Your task to perform on an android device: Search for logitech g910 on costco, select the first entry, add it to the cart, then select checkout. Image 0: 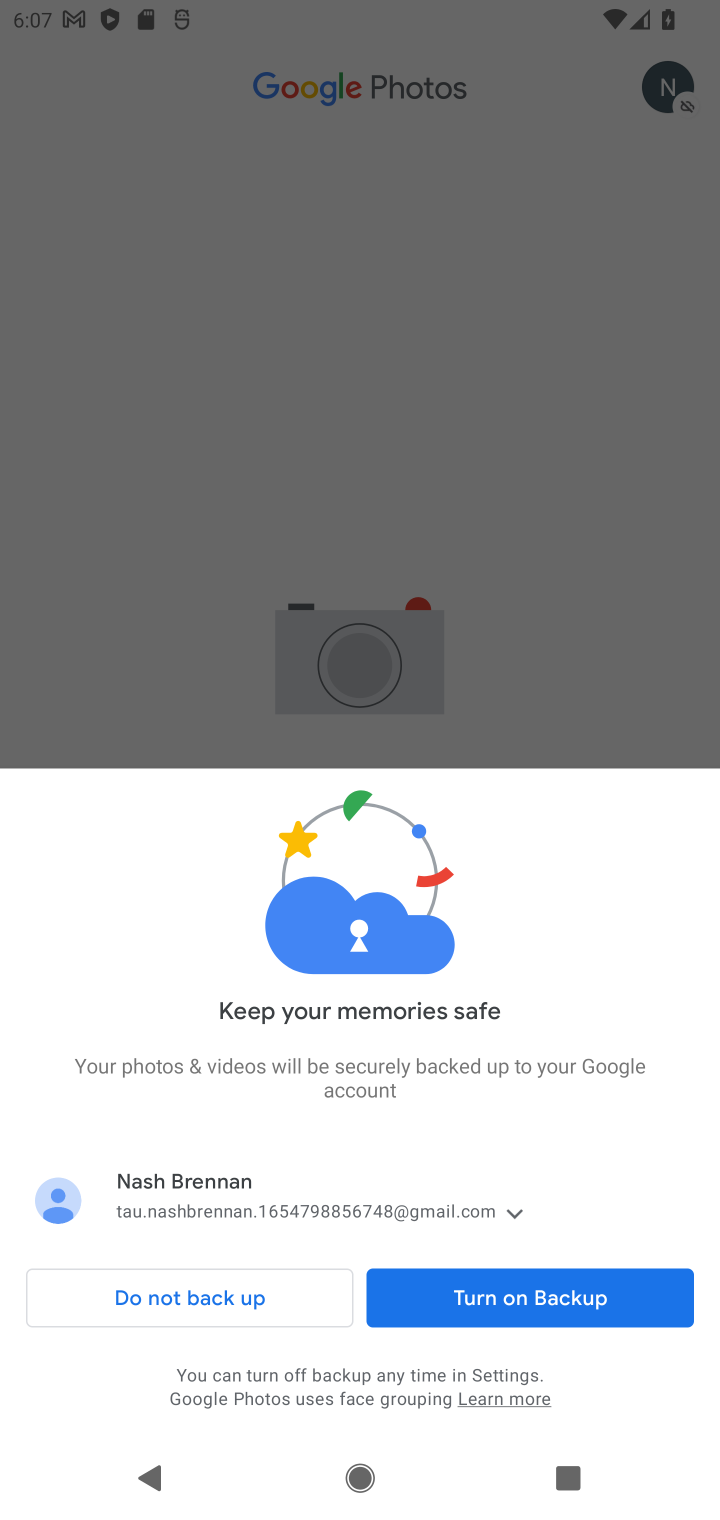
Step 0: press home button
Your task to perform on an android device: Search for logitech g910 on costco, select the first entry, add it to the cart, then select checkout. Image 1: 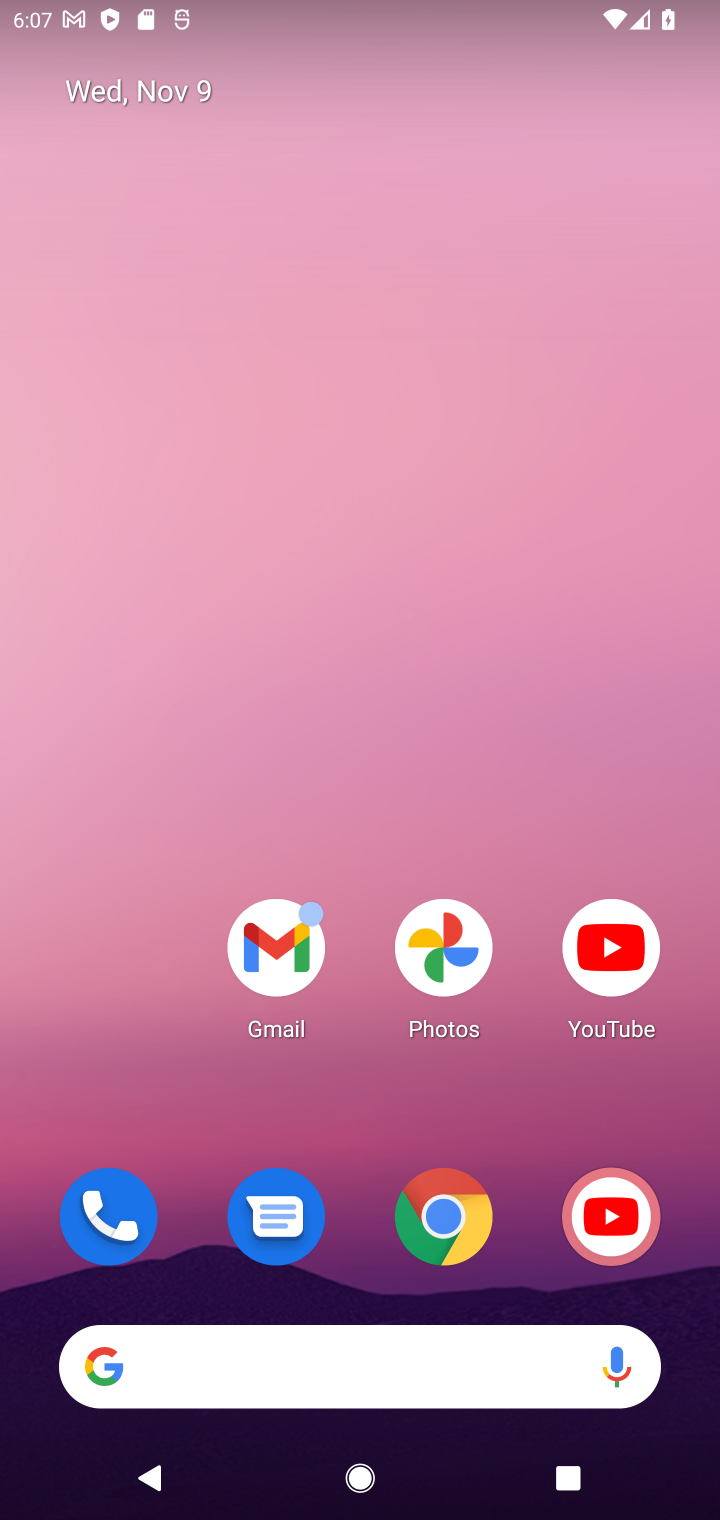
Step 1: drag from (364, 1111) to (460, 63)
Your task to perform on an android device: Search for logitech g910 on costco, select the first entry, add it to the cart, then select checkout. Image 2: 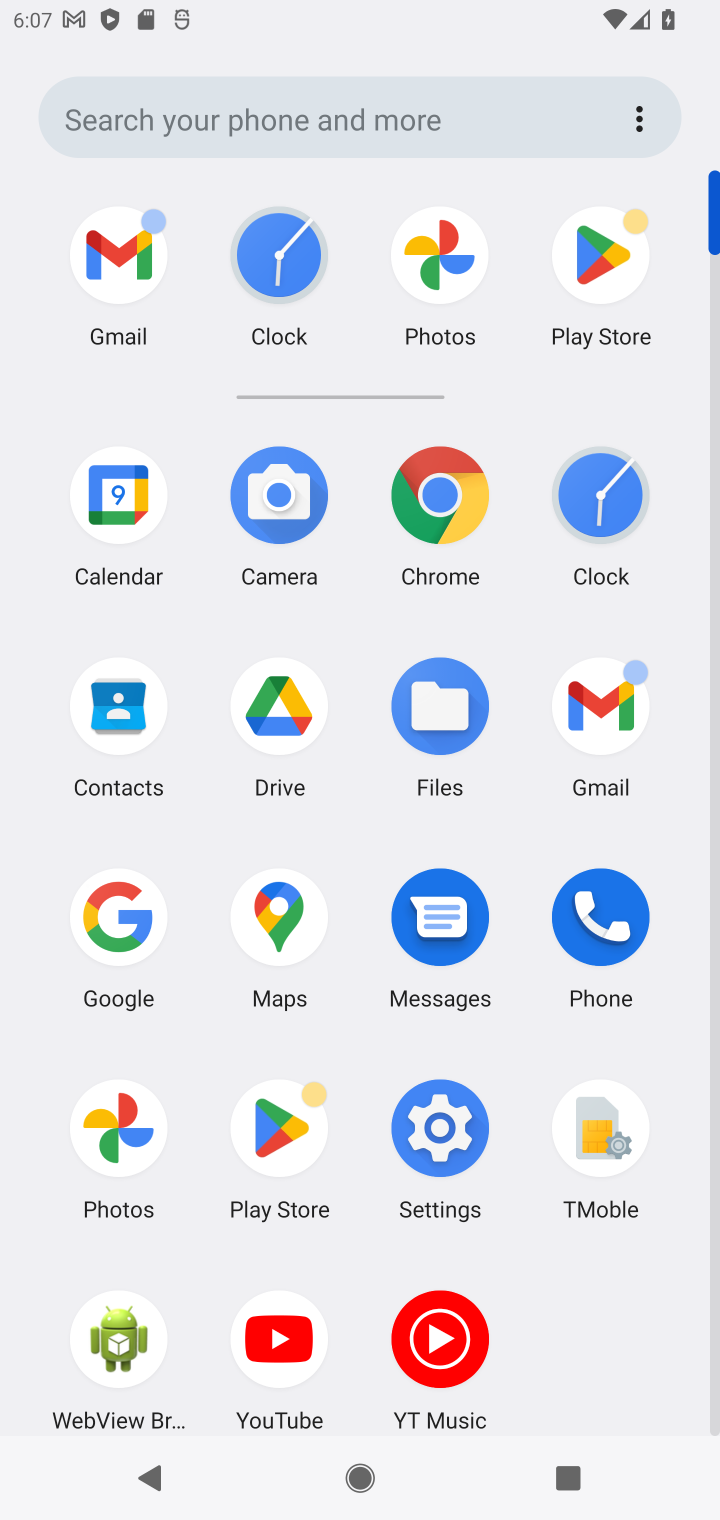
Step 2: click (442, 500)
Your task to perform on an android device: Search for logitech g910 on costco, select the first entry, add it to the cart, then select checkout. Image 3: 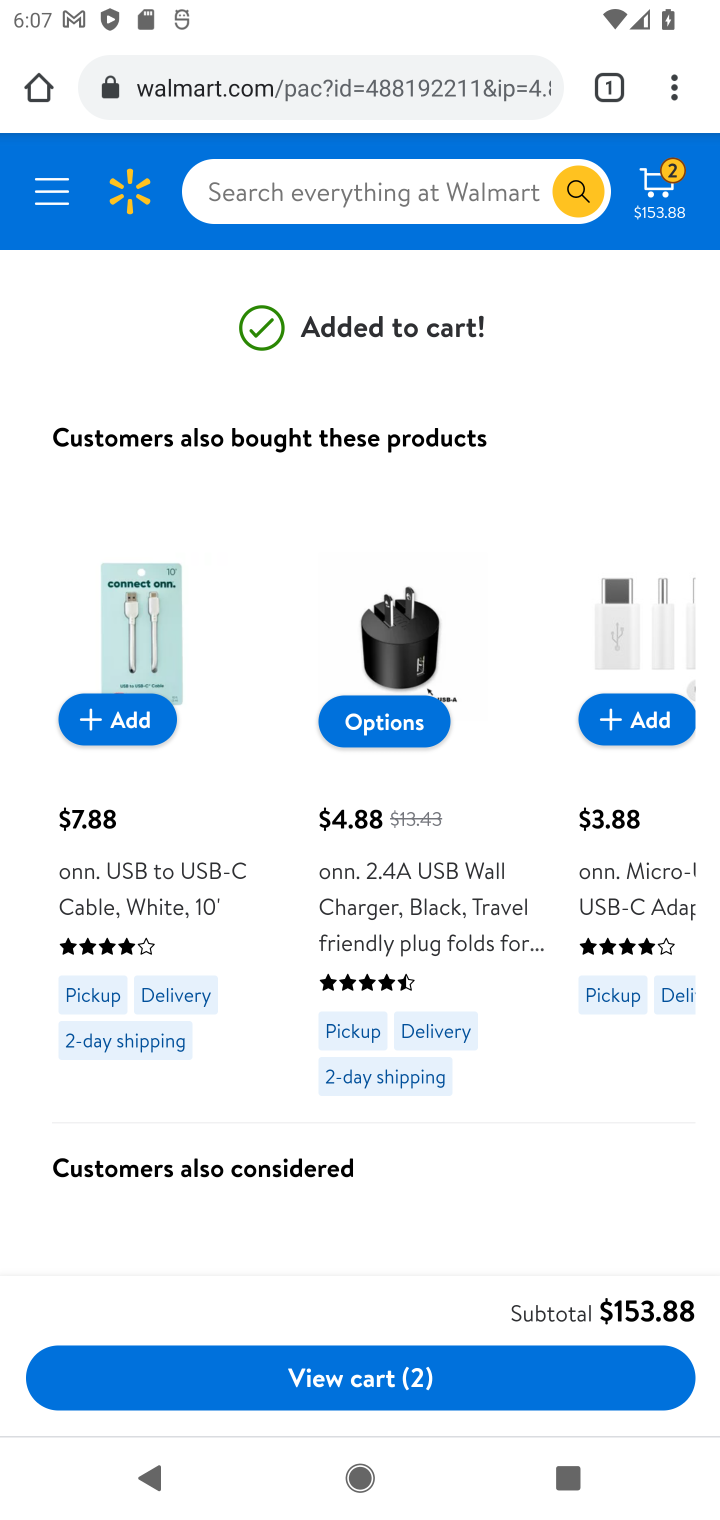
Step 3: click (353, 91)
Your task to perform on an android device: Search for logitech g910 on costco, select the first entry, add it to the cart, then select checkout. Image 4: 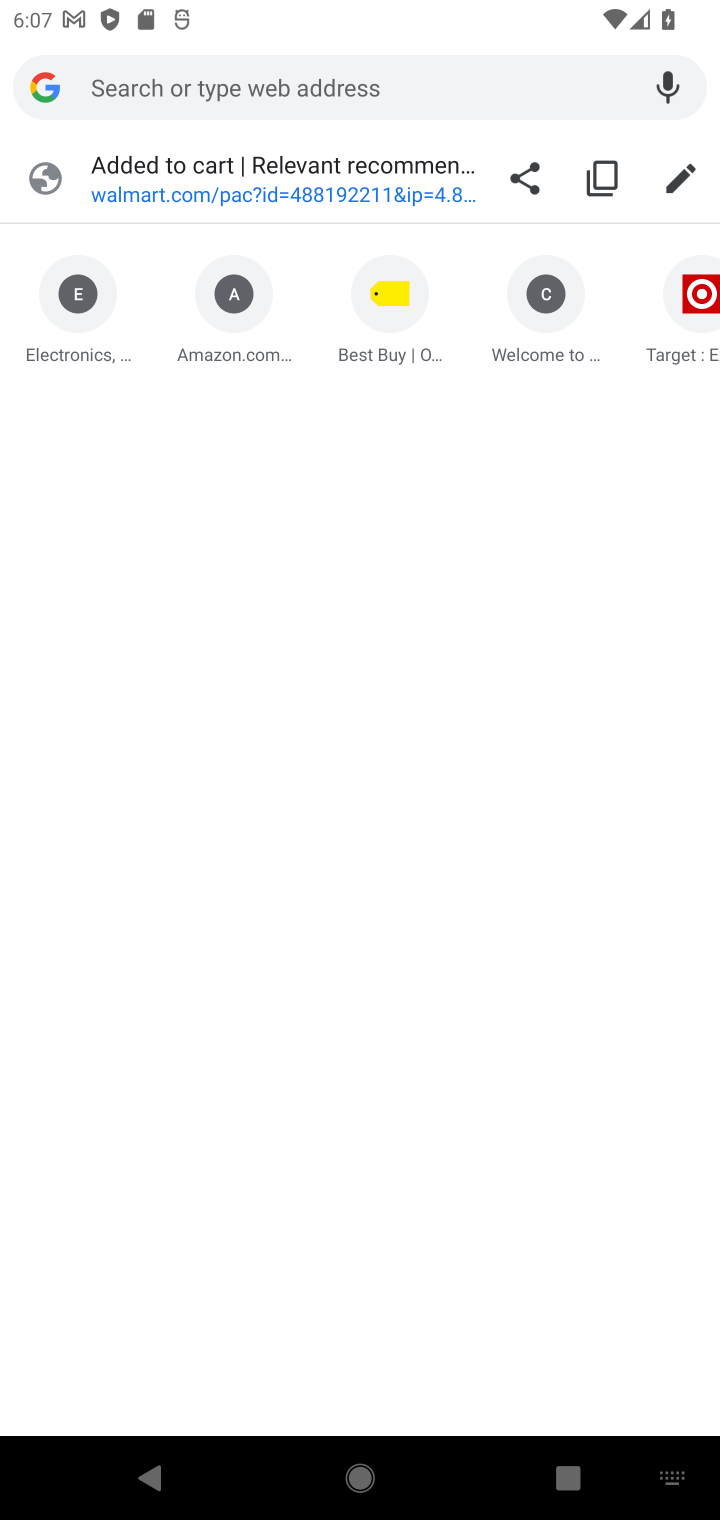
Step 4: type "costco.com"
Your task to perform on an android device: Search for logitech g910 on costco, select the first entry, add it to the cart, then select checkout. Image 5: 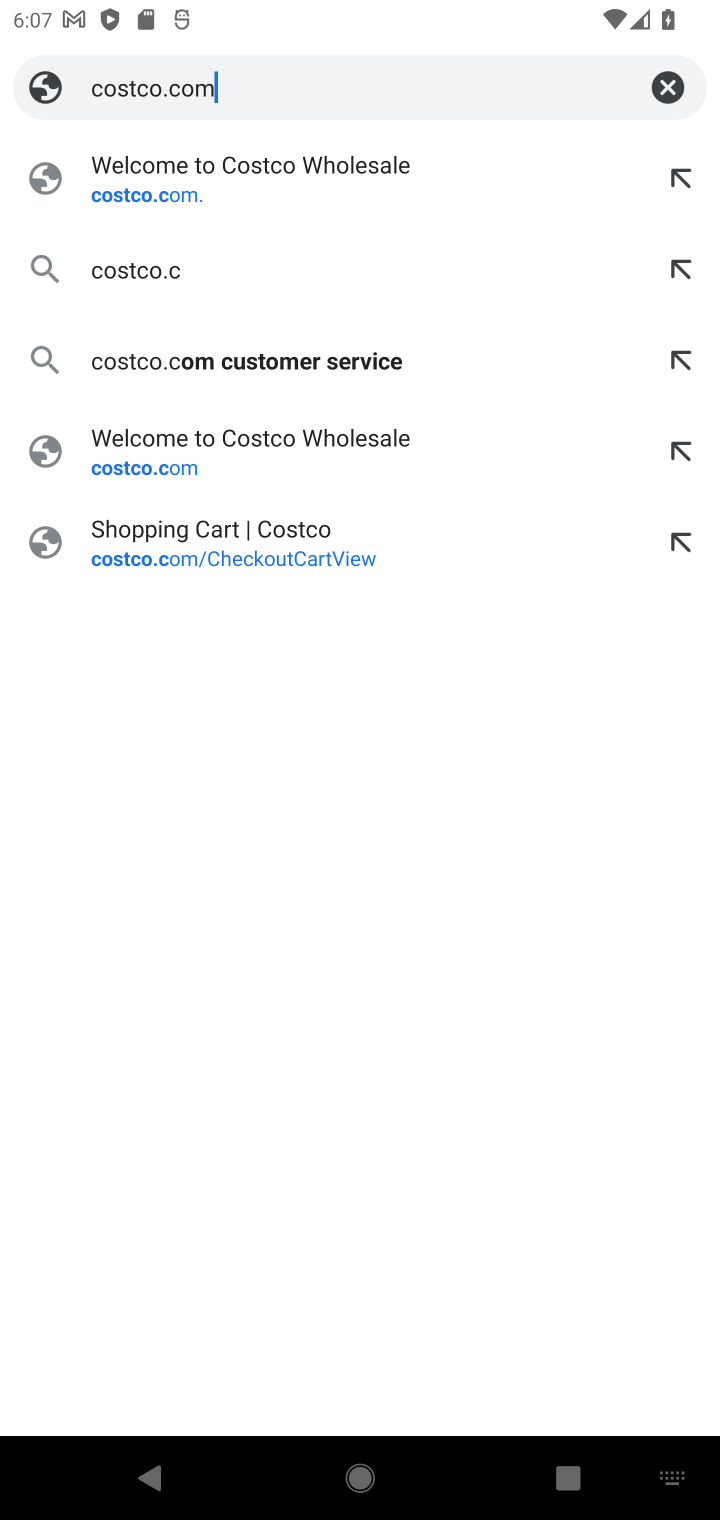
Step 5: press enter
Your task to perform on an android device: Search for logitech g910 on costco, select the first entry, add it to the cart, then select checkout. Image 6: 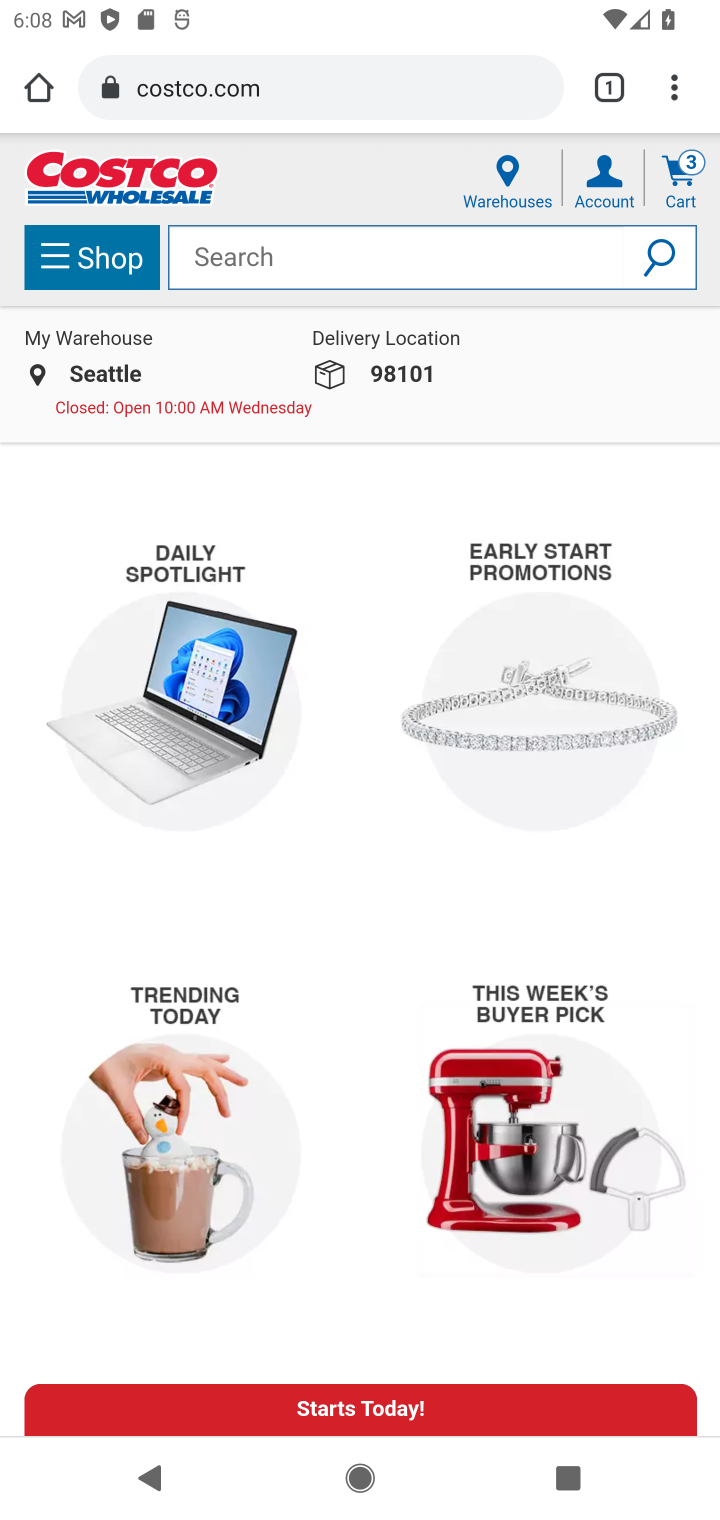
Step 6: click (259, 257)
Your task to perform on an android device: Search for logitech g910 on costco, select the first entry, add it to the cart, then select checkout. Image 7: 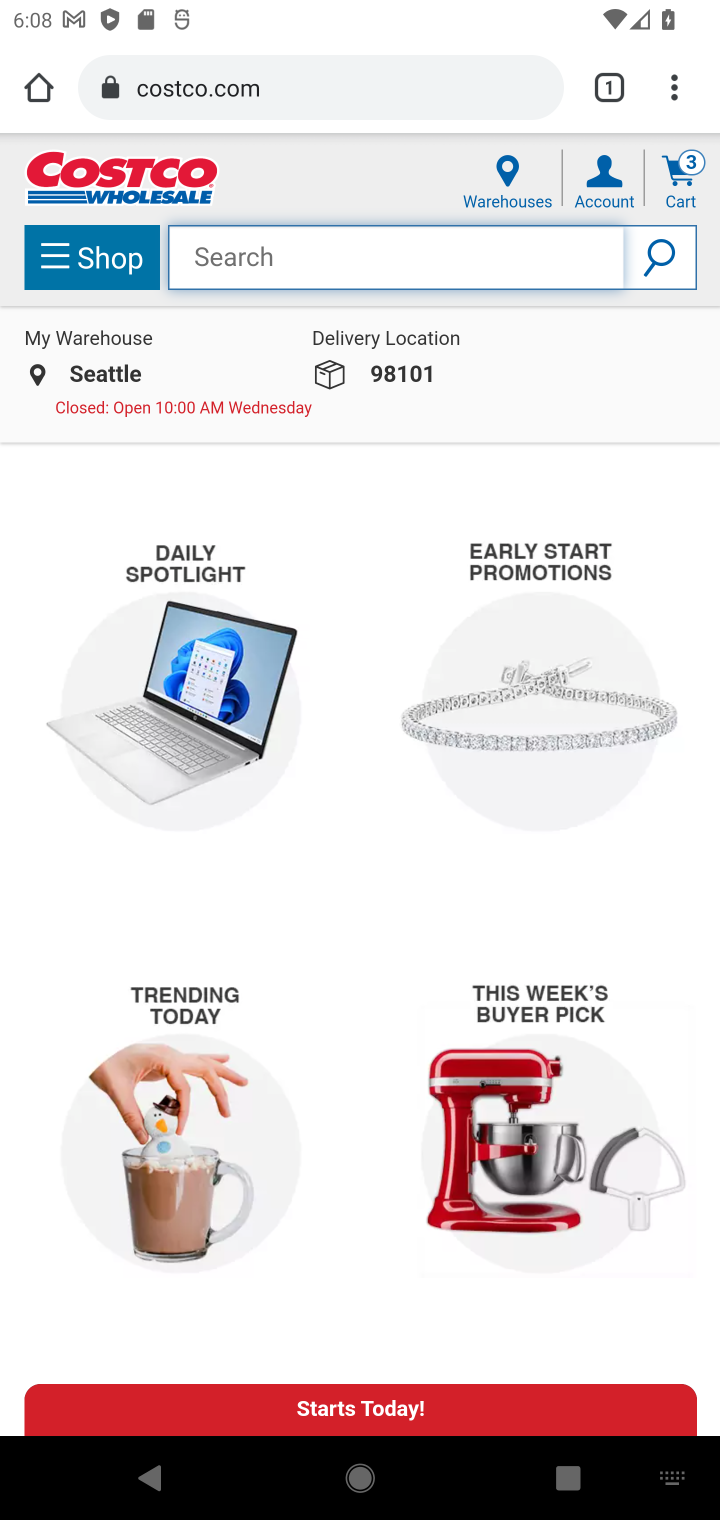
Step 7: type "logitech g910"
Your task to perform on an android device: Search for logitech g910 on costco, select the first entry, add it to the cart, then select checkout. Image 8: 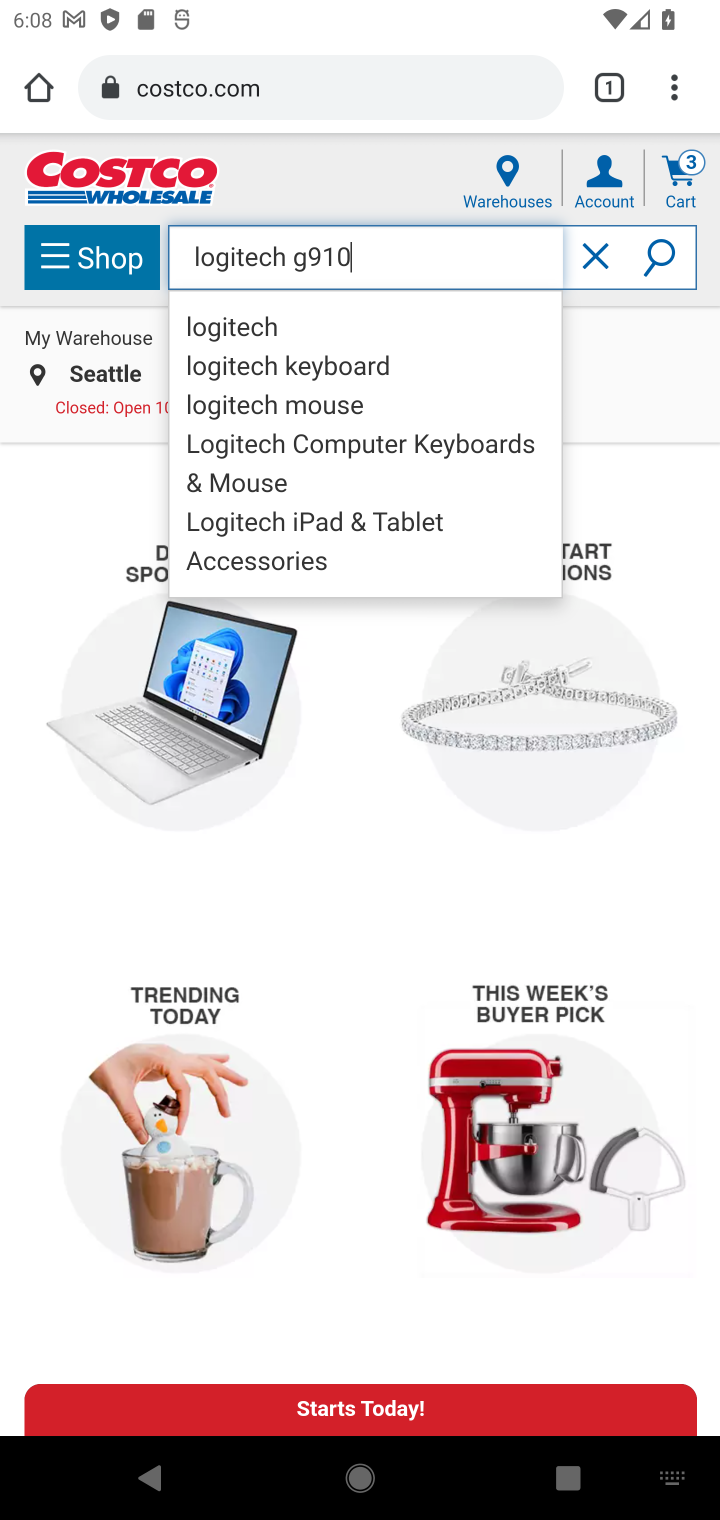
Step 8: press enter
Your task to perform on an android device: Search for logitech g910 on costco, select the first entry, add it to the cart, then select checkout. Image 9: 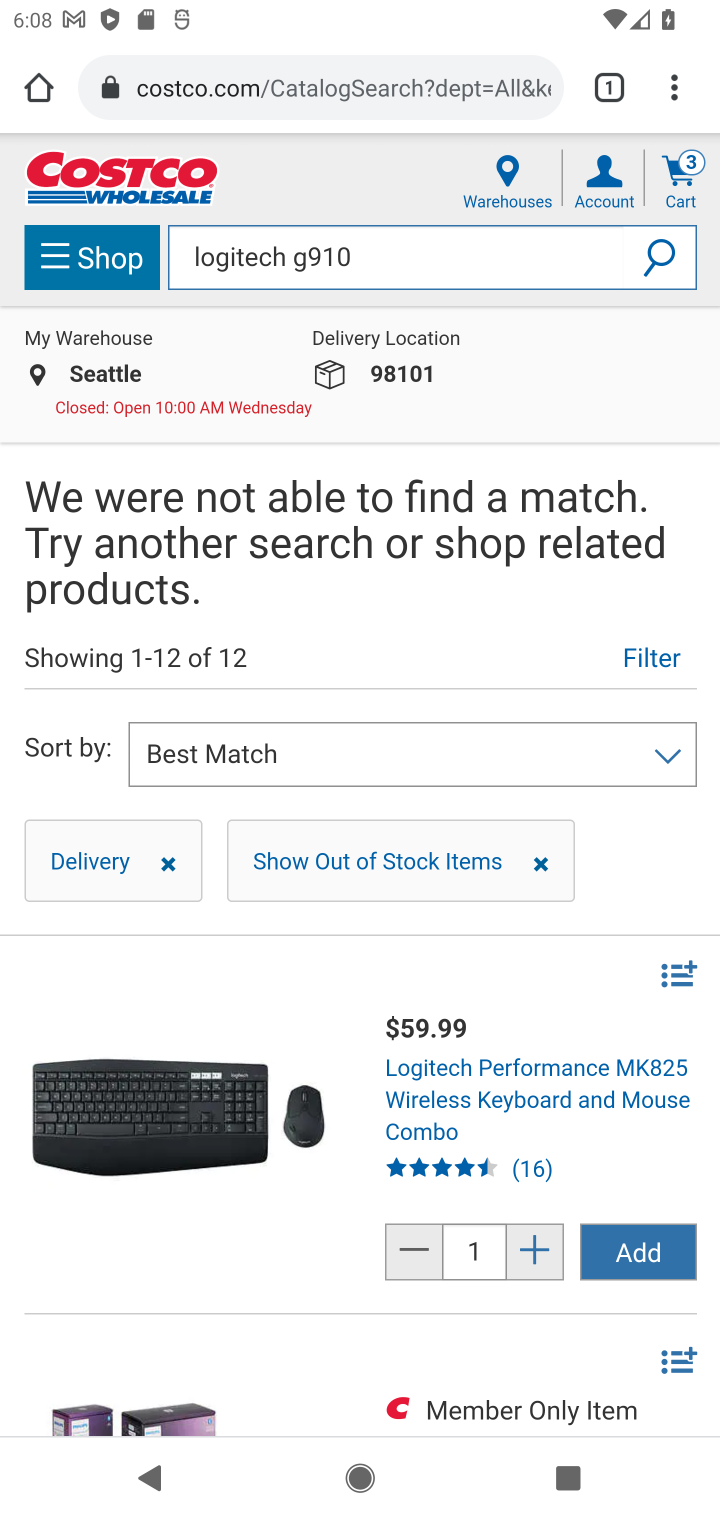
Step 9: task complete